Your task to perform on an android device: turn pop-ups off in chrome Image 0: 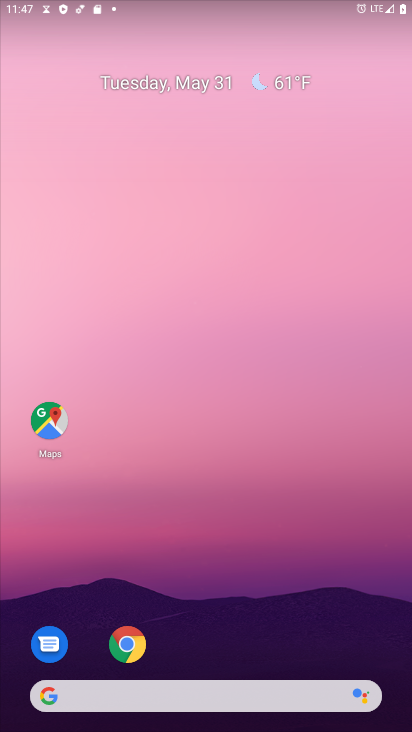
Step 0: click (120, 636)
Your task to perform on an android device: turn pop-ups off in chrome Image 1: 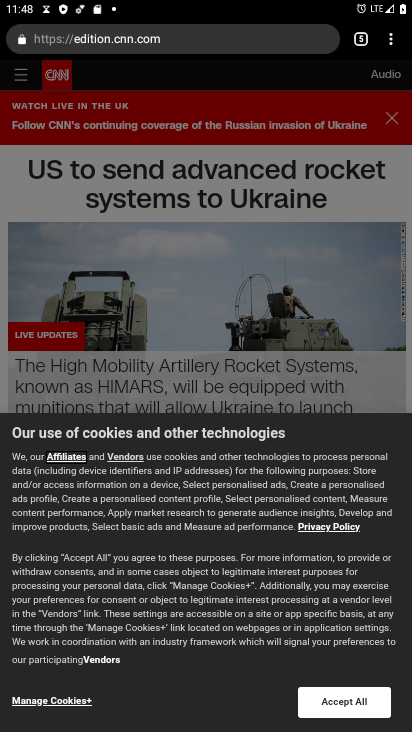
Step 1: drag from (392, 37) to (260, 437)
Your task to perform on an android device: turn pop-ups off in chrome Image 2: 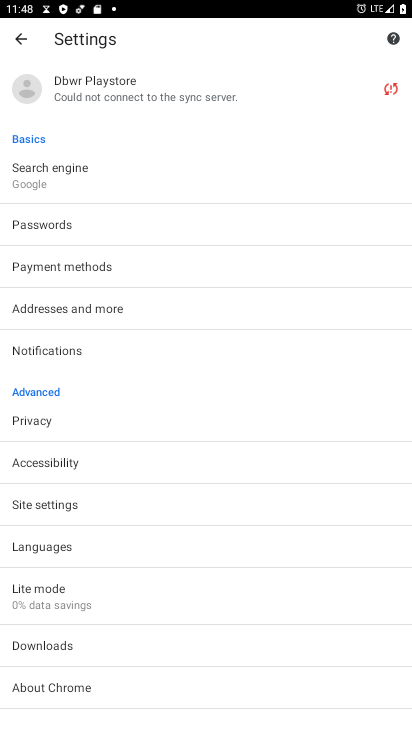
Step 2: click (74, 507)
Your task to perform on an android device: turn pop-ups off in chrome Image 3: 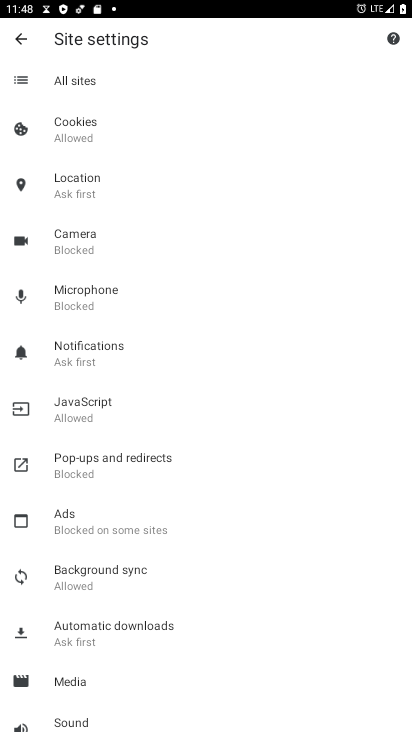
Step 3: click (118, 461)
Your task to perform on an android device: turn pop-ups off in chrome Image 4: 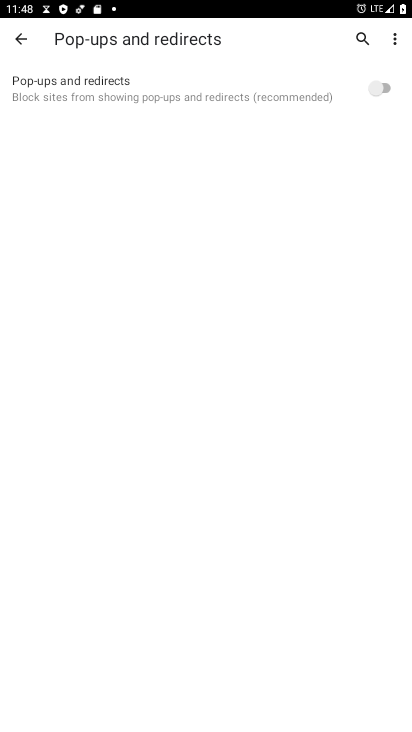
Step 4: task complete